Your task to perform on an android device: set an alarm Image 0: 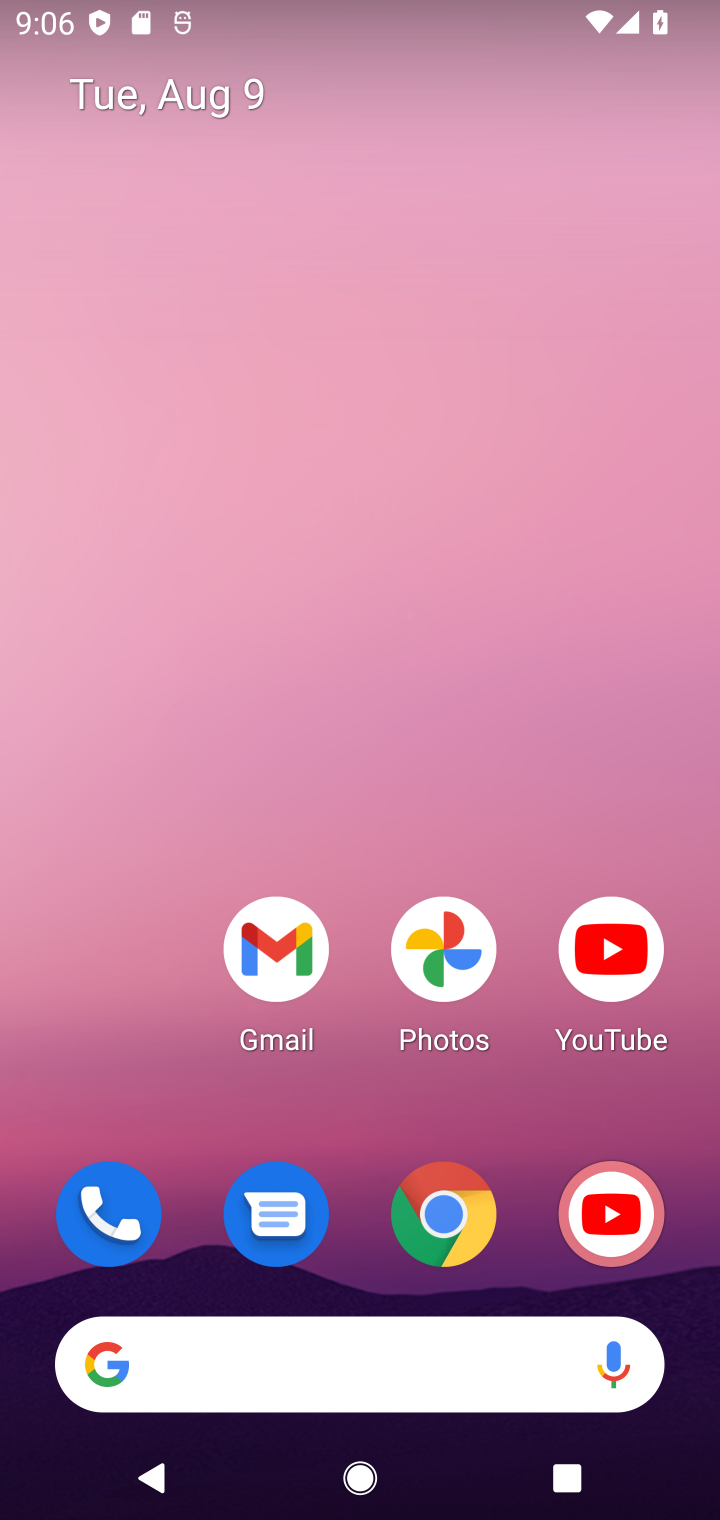
Step 0: drag from (72, 1419) to (466, 22)
Your task to perform on an android device: set an alarm Image 1: 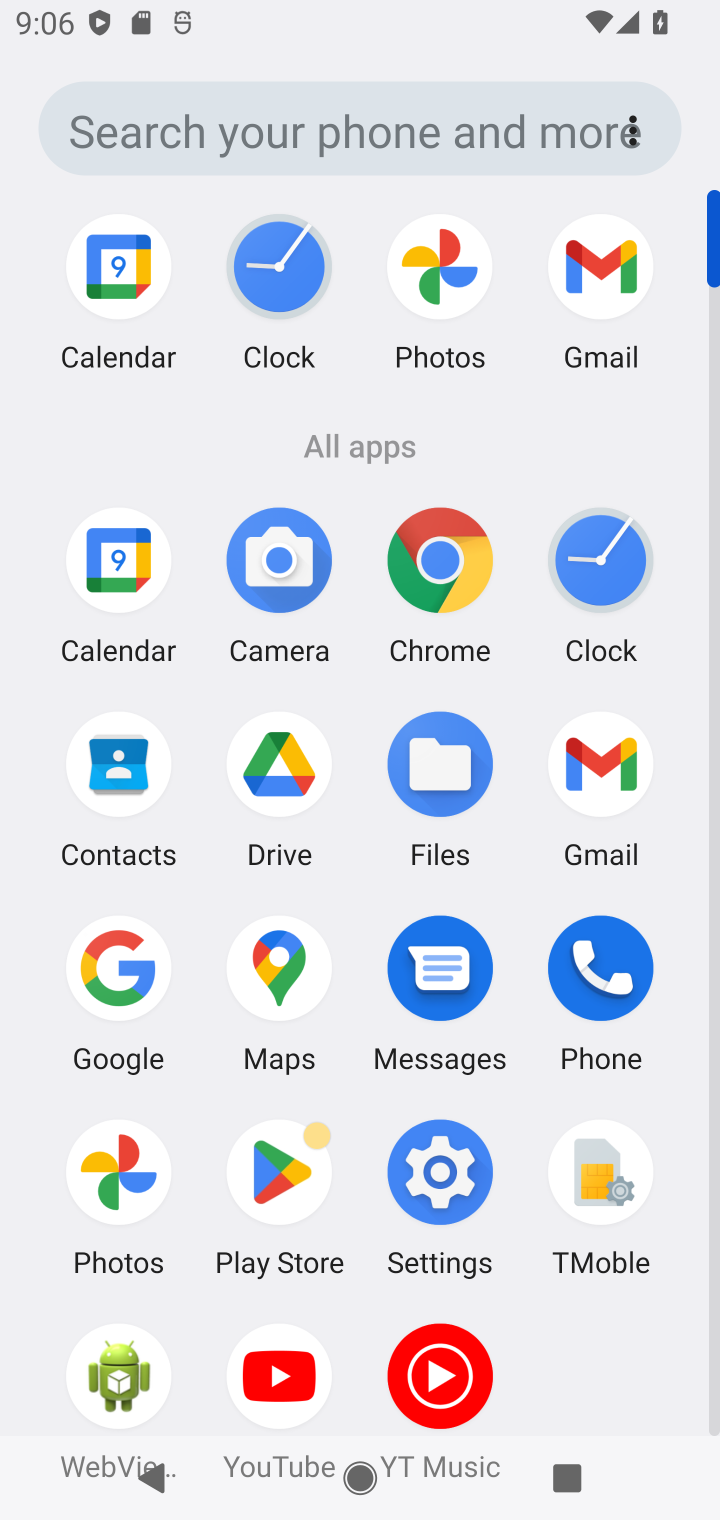
Step 1: click (269, 302)
Your task to perform on an android device: set an alarm Image 2: 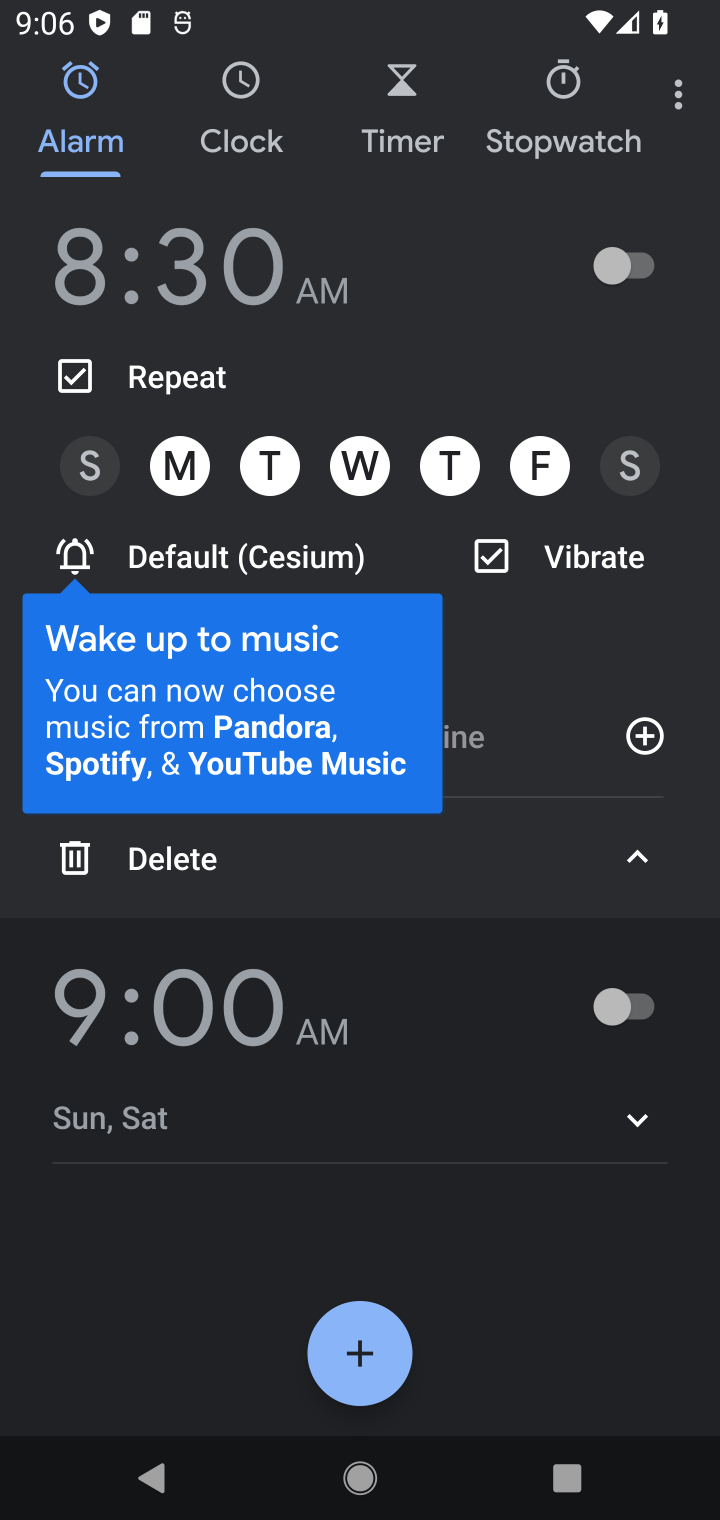
Step 2: click (613, 265)
Your task to perform on an android device: set an alarm Image 3: 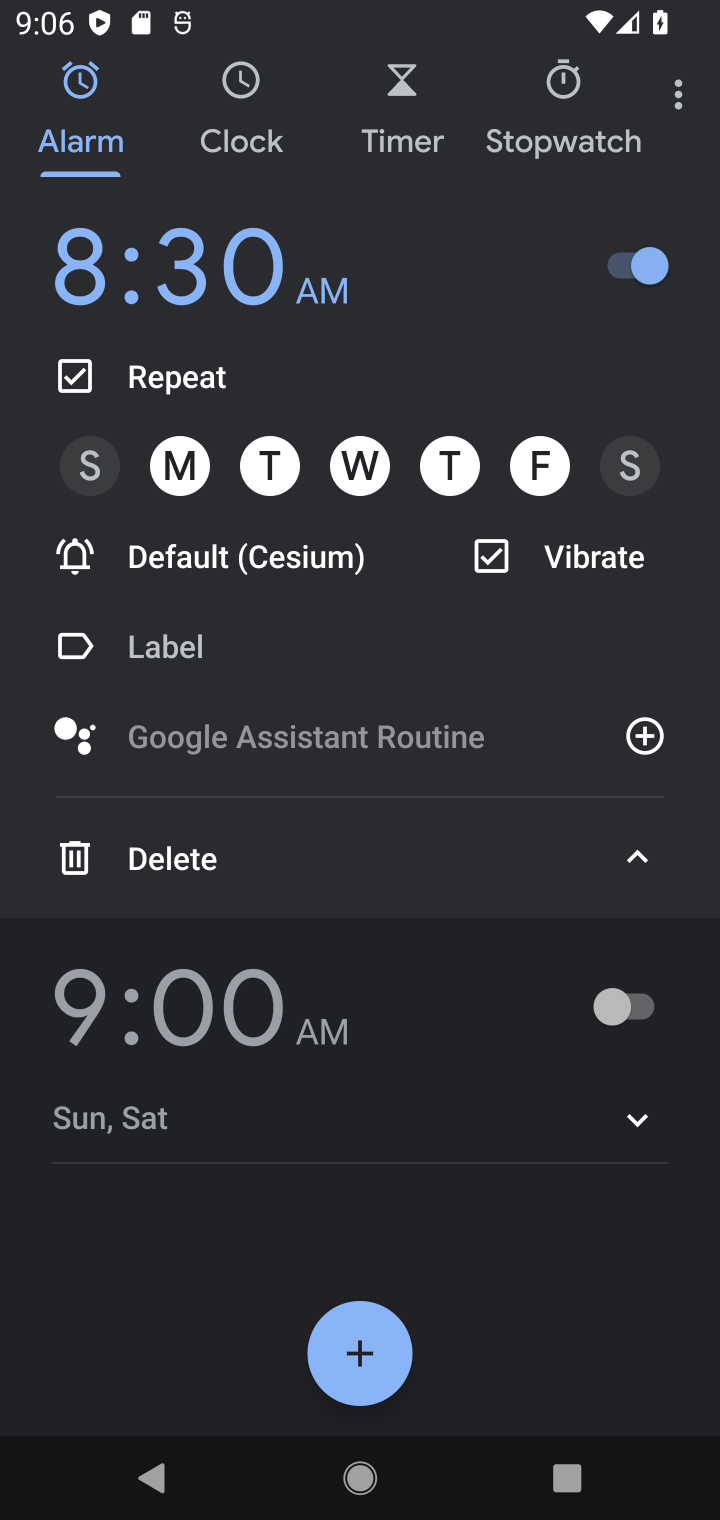
Step 3: task complete